Your task to perform on an android device: Go to Reddit.com Image 0: 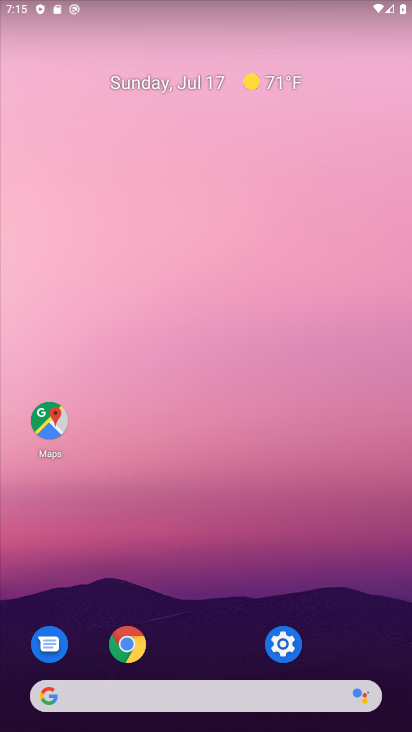
Step 0: click (117, 647)
Your task to perform on an android device: Go to Reddit.com Image 1: 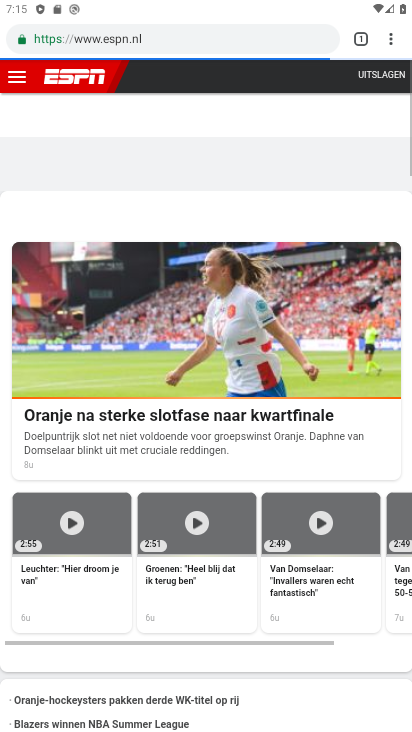
Step 1: click (199, 436)
Your task to perform on an android device: Go to Reddit.com Image 2: 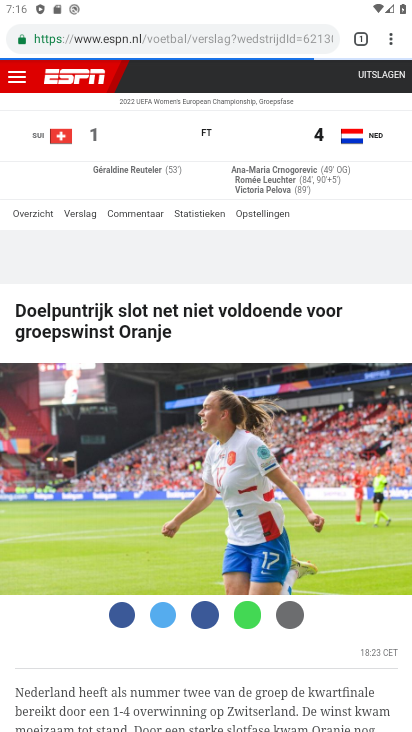
Step 2: click (120, 48)
Your task to perform on an android device: Go to Reddit.com Image 3: 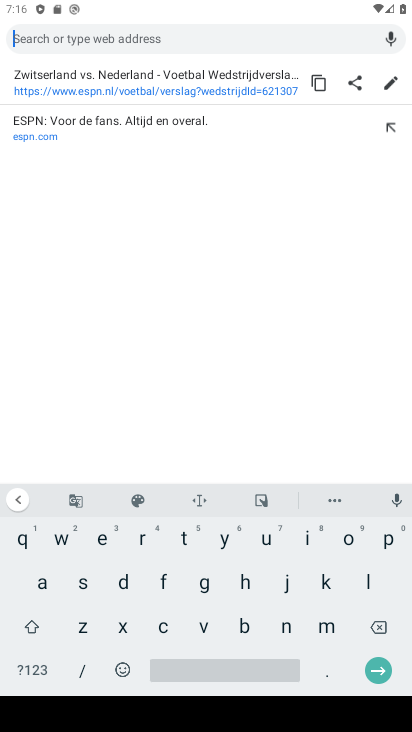
Step 3: click (142, 538)
Your task to perform on an android device: Go to Reddit.com Image 4: 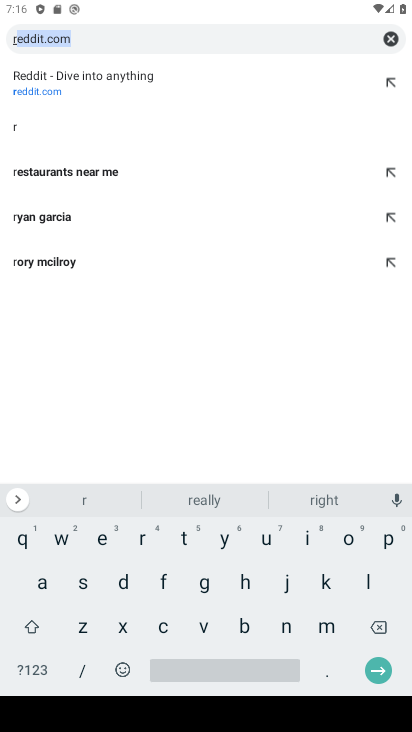
Step 4: click (103, 538)
Your task to perform on an android device: Go to Reddit.com Image 5: 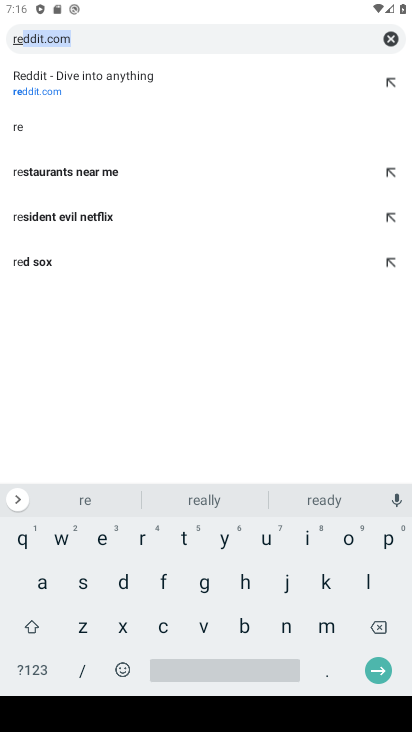
Step 5: click (114, 36)
Your task to perform on an android device: Go to Reddit.com Image 6: 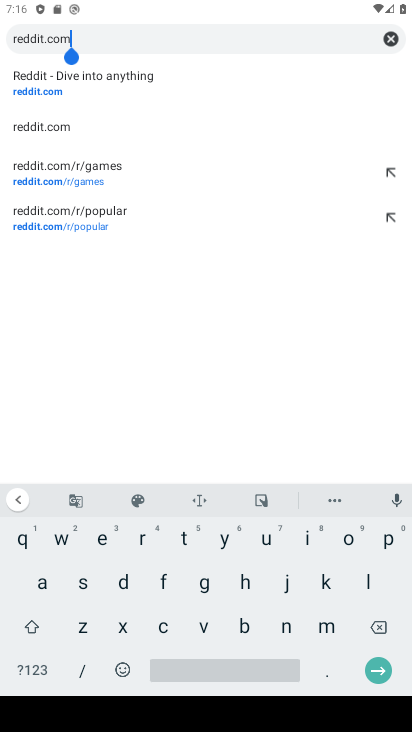
Step 6: click (379, 667)
Your task to perform on an android device: Go to Reddit.com Image 7: 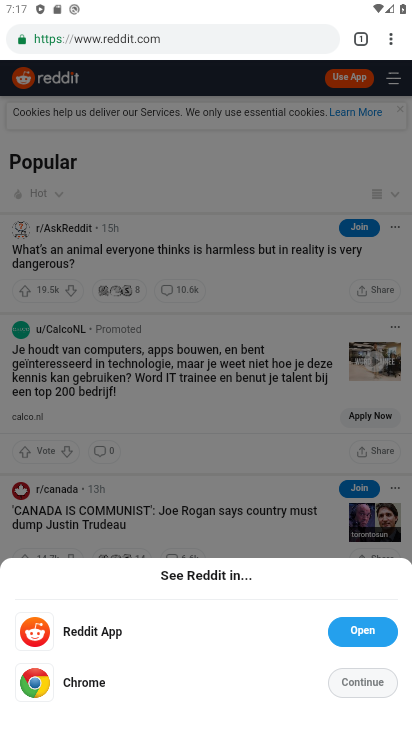
Step 7: click (346, 681)
Your task to perform on an android device: Go to Reddit.com Image 8: 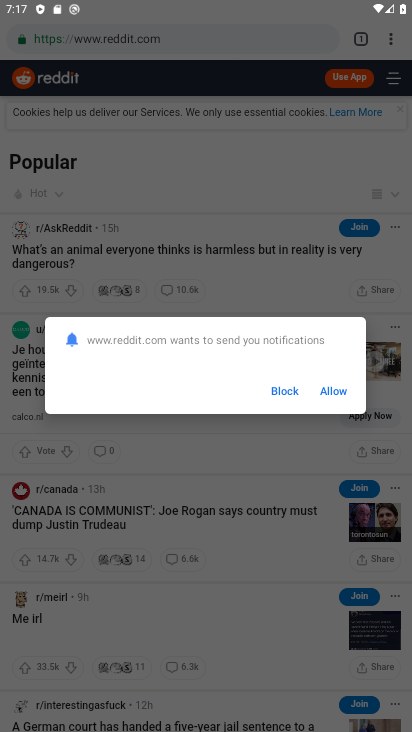
Step 8: click (279, 400)
Your task to perform on an android device: Go to Reddit.com Image 9: 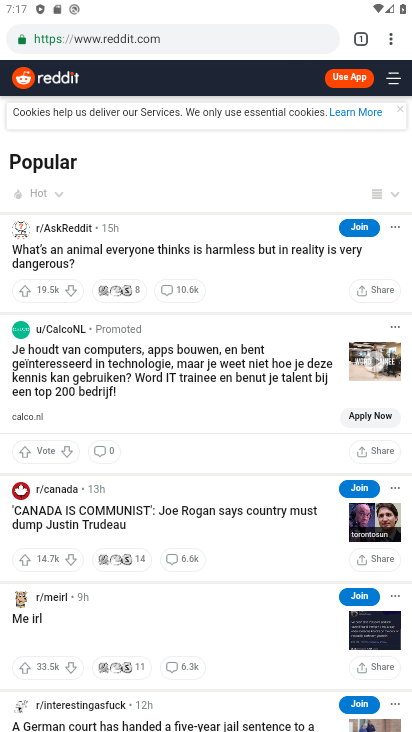
Step 9: task complete